Your task to perform on an android device: open app "Messages" (install if not already installed), go to login, and select forgot password Image 0: 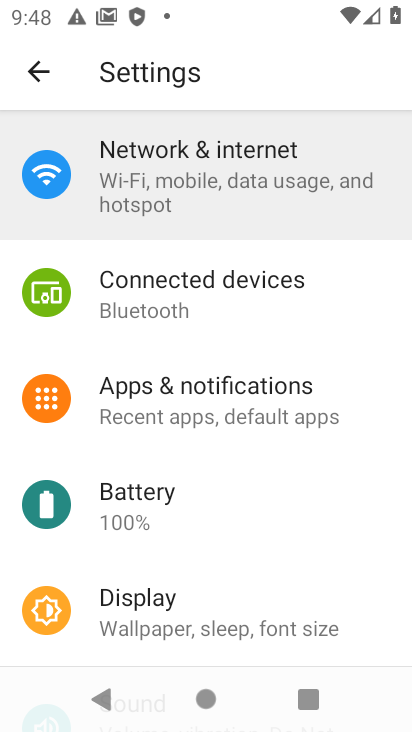
Step 0: press home button
Your task to perform on an android device: open app "Messages" (install if not already installed), go to login, and select forgot password Image 1: 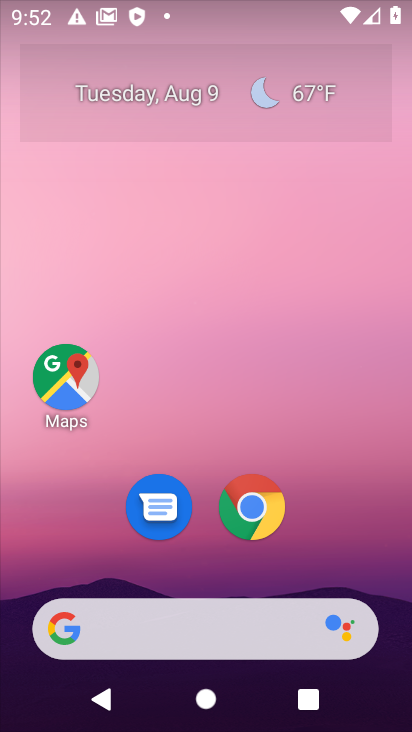
Step 1: drag from (133, 527) to (90, 160)
Your task to perform on an android device: open app "Messages" (install if not already installed), go to login, and select forgot password Image 2: 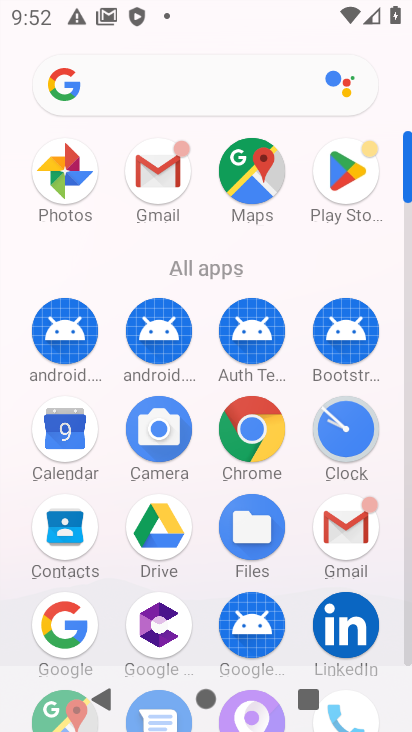
Step 2: click (344, 178)
Your task to perform on an android device: open app "Messages" (install if not already installed), go to login, and select forgot password Image 3: 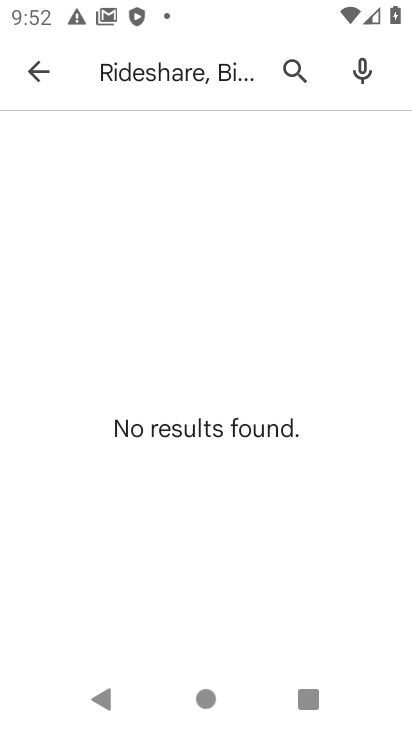
Step 3: click (37, 84)
Your task to perform on an android device: open app "Messages" (install if not already installed), go to login, and select forgot password Image 4: 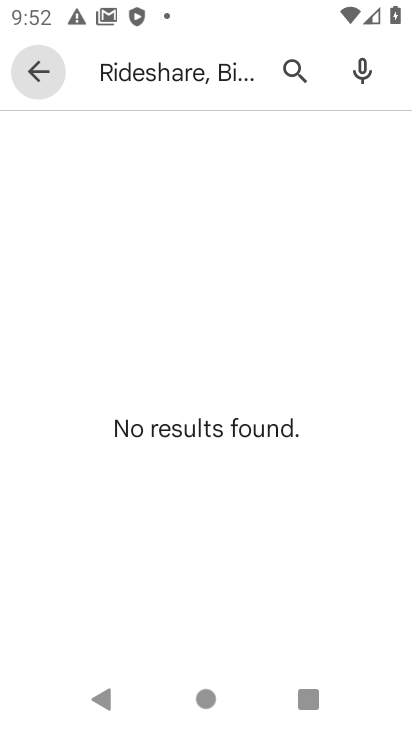
Step 4: click (290, 67)
Your task to perform on an android device: open app "Messages" (install if not already installed), go to login, and select forgot password Image 5: 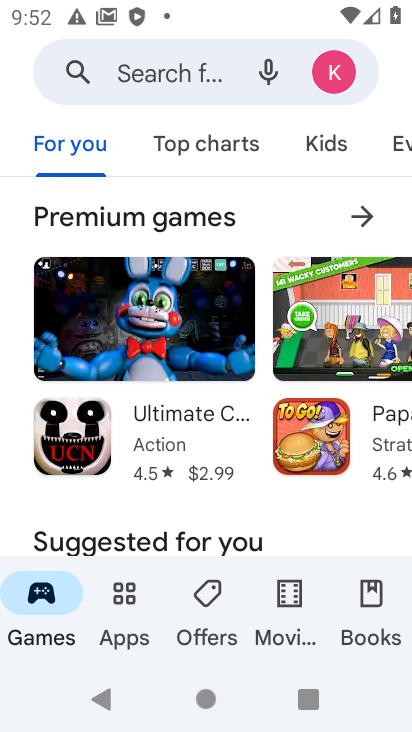
Step 5: click (164, 82)
Your task to perform on an android device: open app "Messages" (install if not already installed), go to login, and select forgot password Image 6: 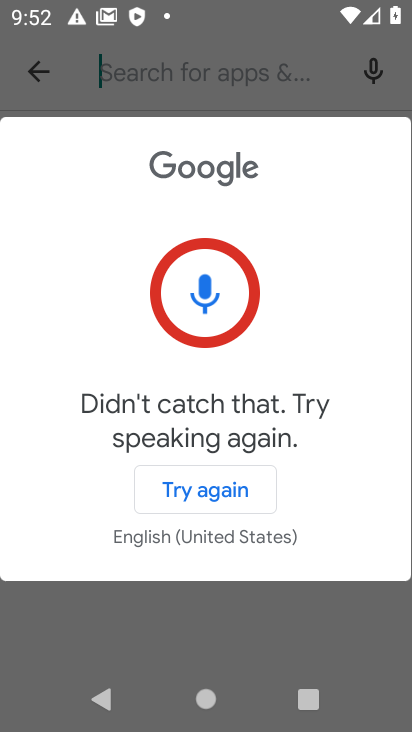
Step 6: press back button
Your task to perform on an android device: open app "Messages" (install if not already installed), go to login, and select forgot password Image 7: 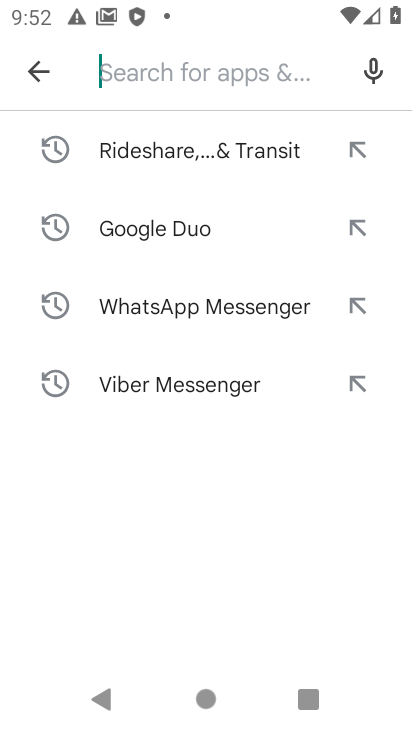
Step 7: type "Messages"
Your task to perform on an android device: open app "Messages" (install if not already installed), go to login, and select forgot password Image 8: 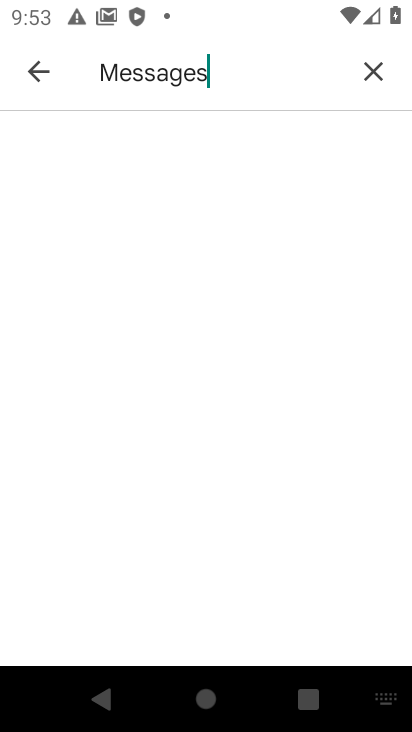
Step 8: press enter
Your task to perform on an android device: open app "Messages" (install if not already installed), go to login, and select forgot password Image 9: 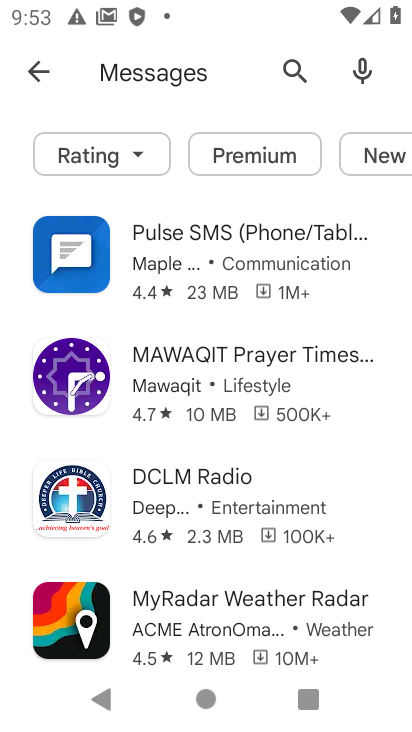
Step 9: task complete